Your task to perform on an android device: change the upload size in google photos Image 0: 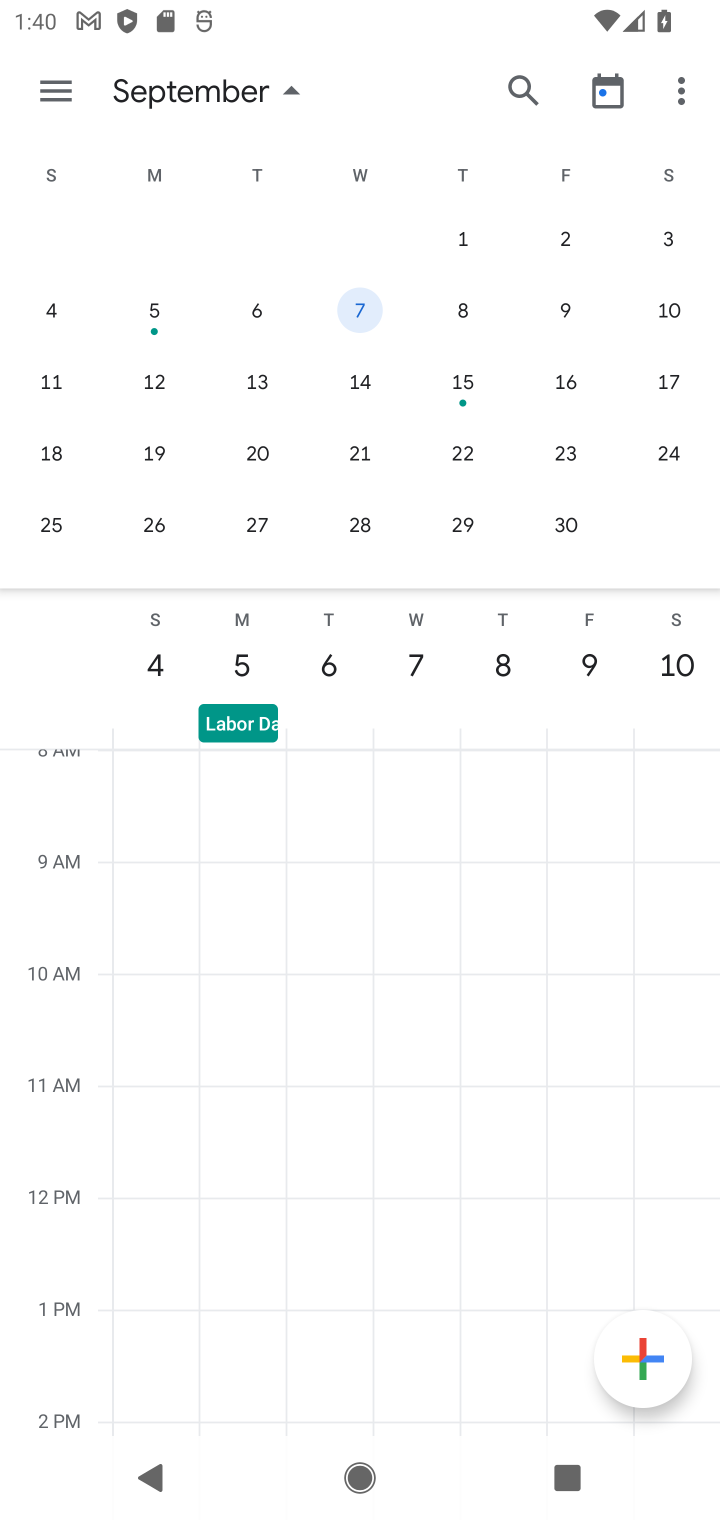
Step 0: press home button
Your task to perform on an android device: change the upload size in google photos Image 1: 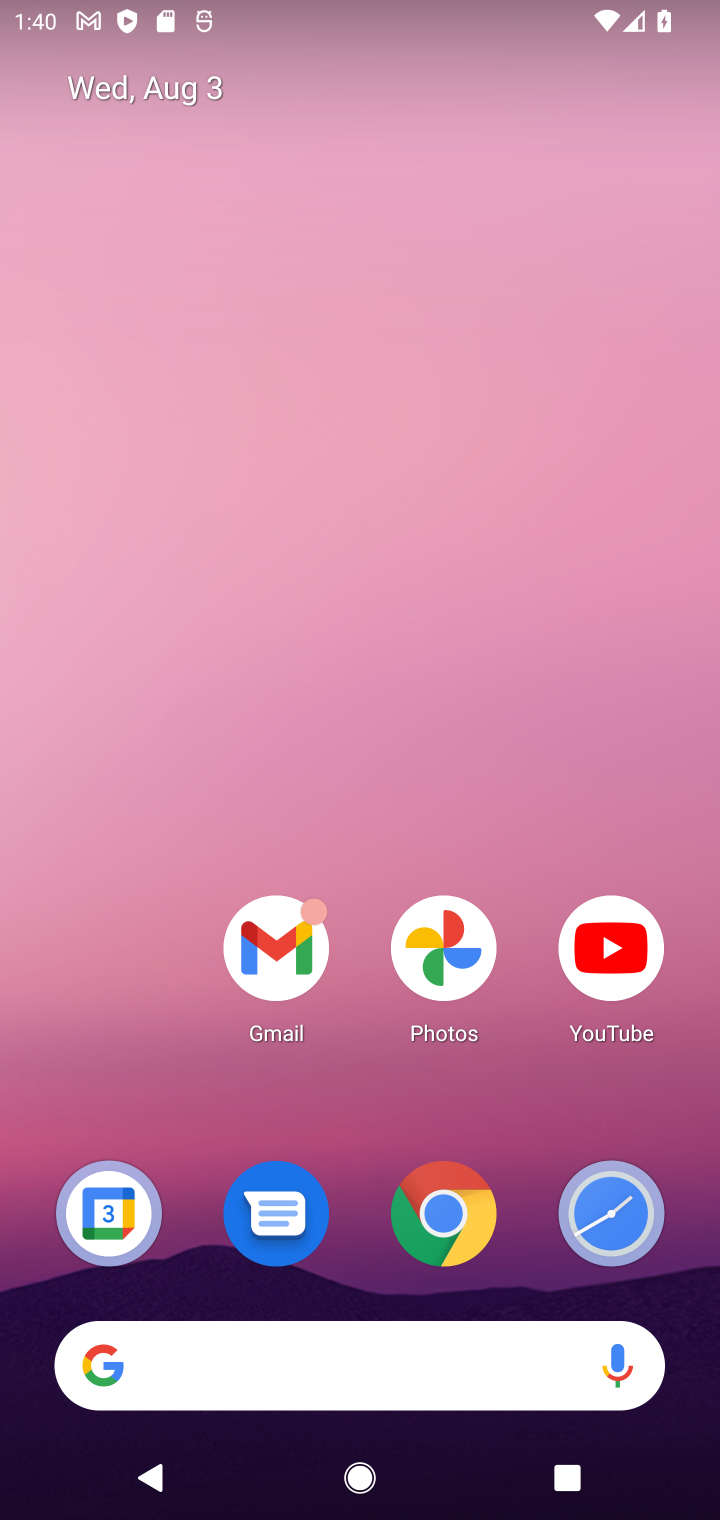
Step 1: drag from (521, 900) to (541, 34)
Your task to perform on an android device: change the upload size in google photos Image 2: 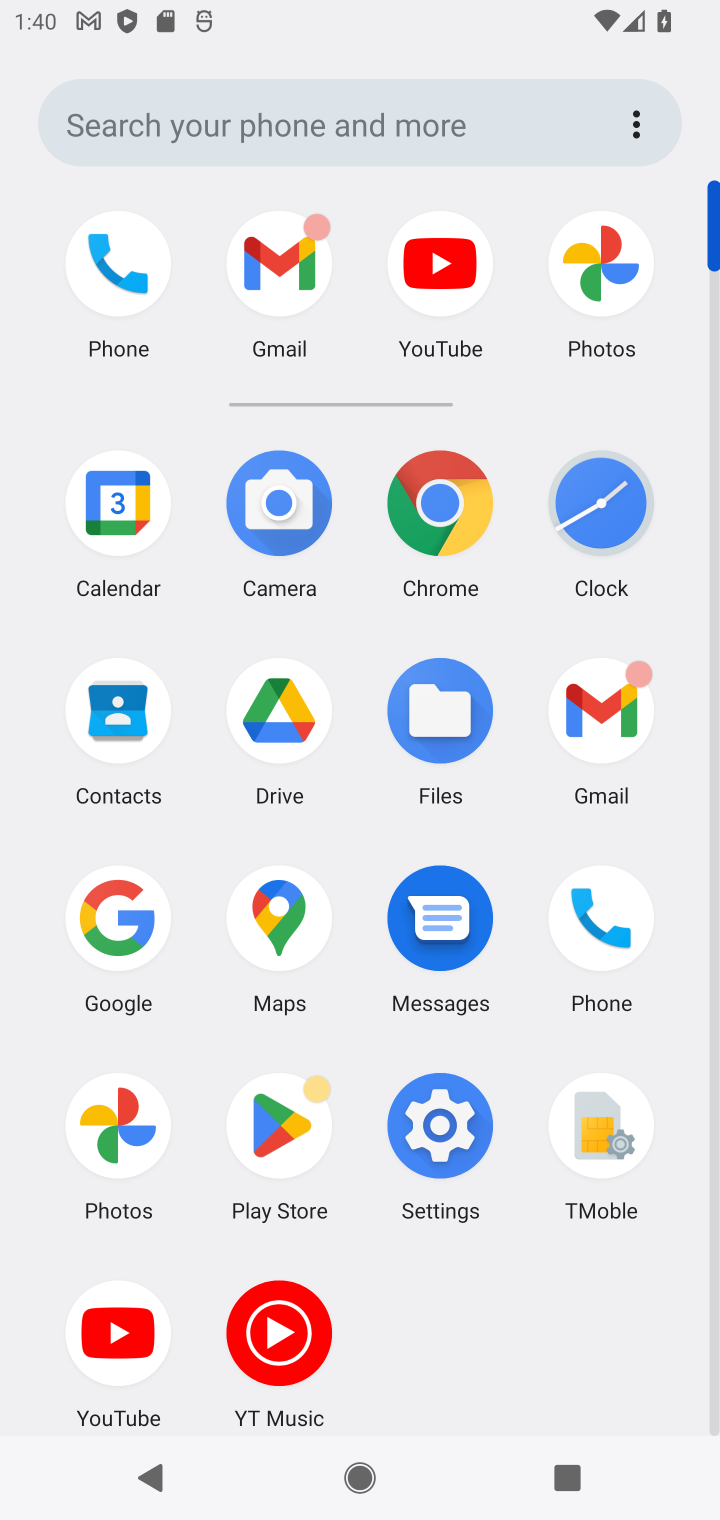
Step 2: click (132, 1118)
Your task to perform on an android device: change the upload size in google photos Image 3: 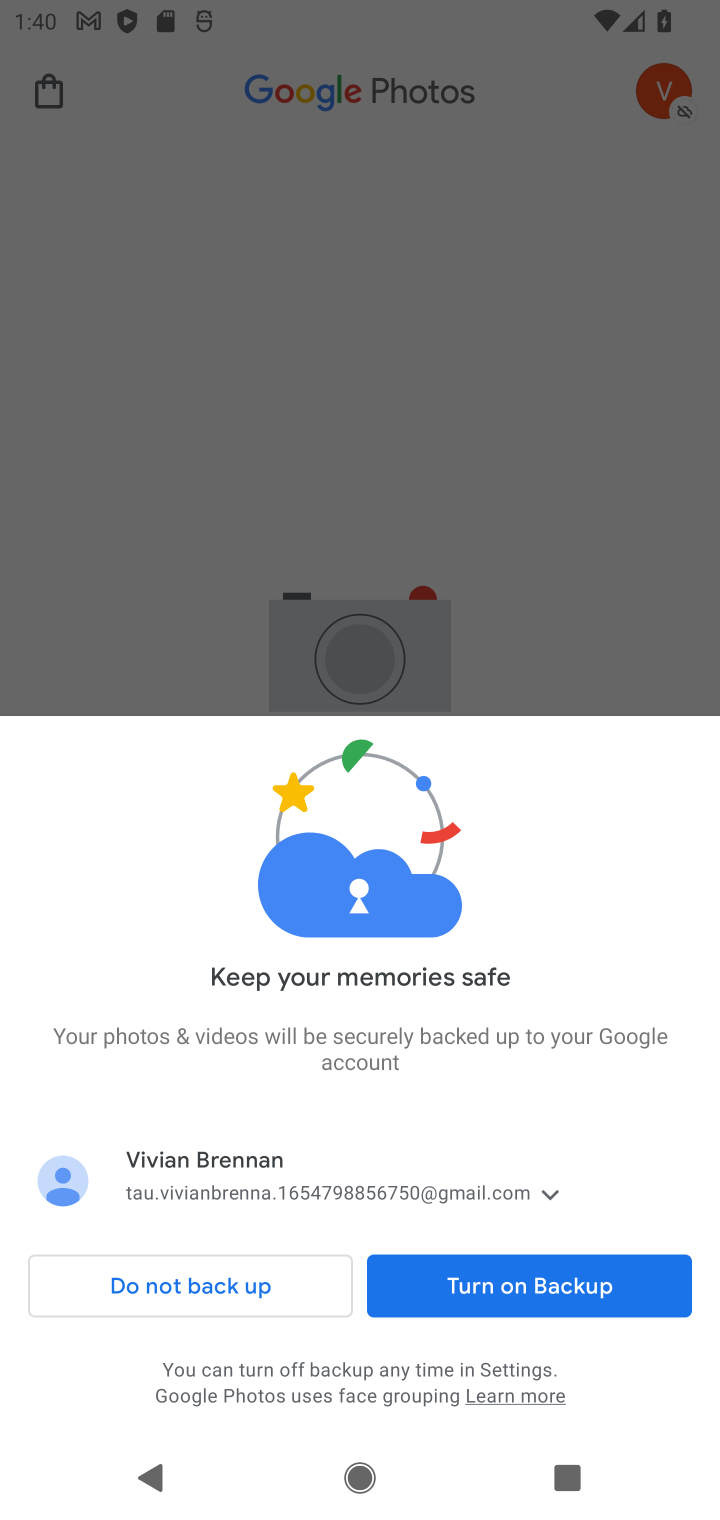
Step 3: click (474, 1287)
Your task to perform on an android device: change the upload size in google photos Image 4: 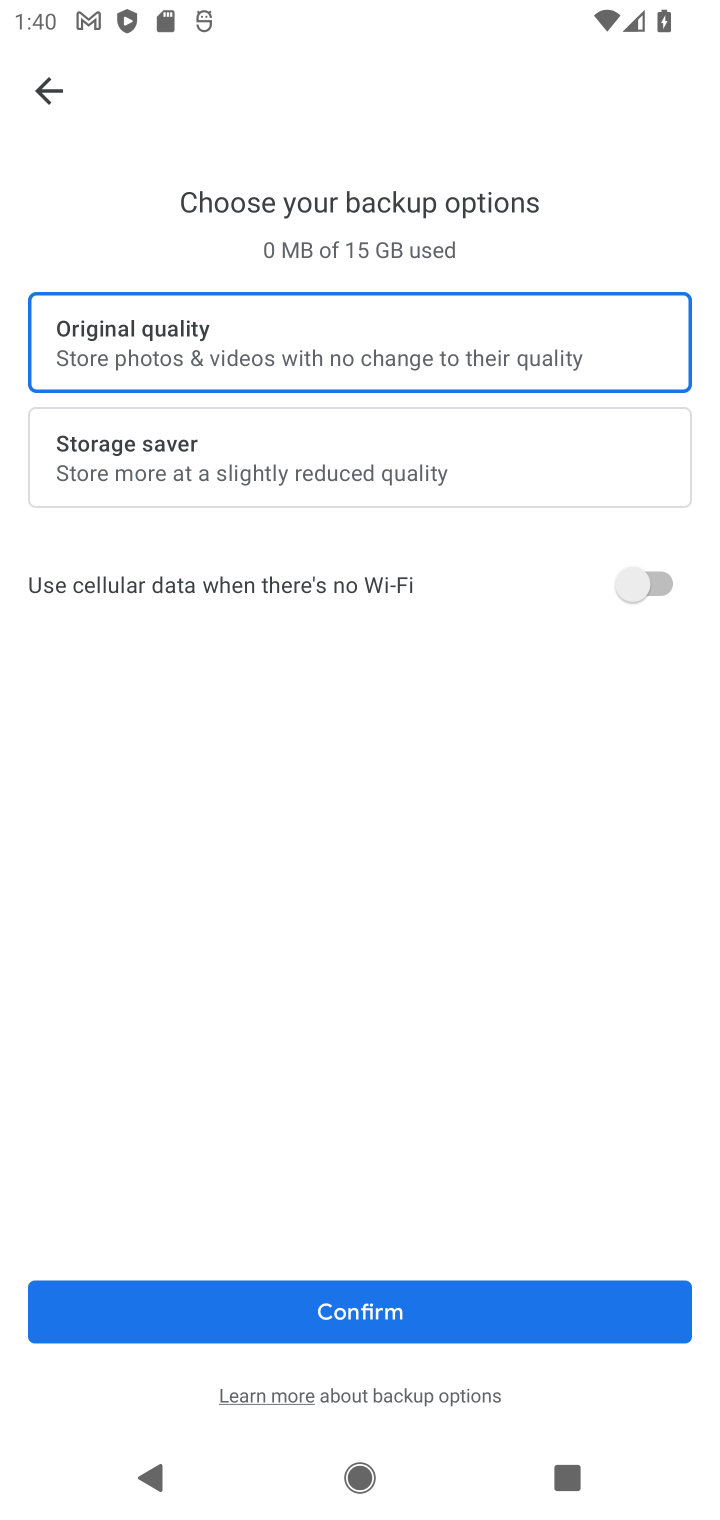
Step 4: click (414, 1311)
Your task to perform on an android device: change the upload size in google photos Image 5: 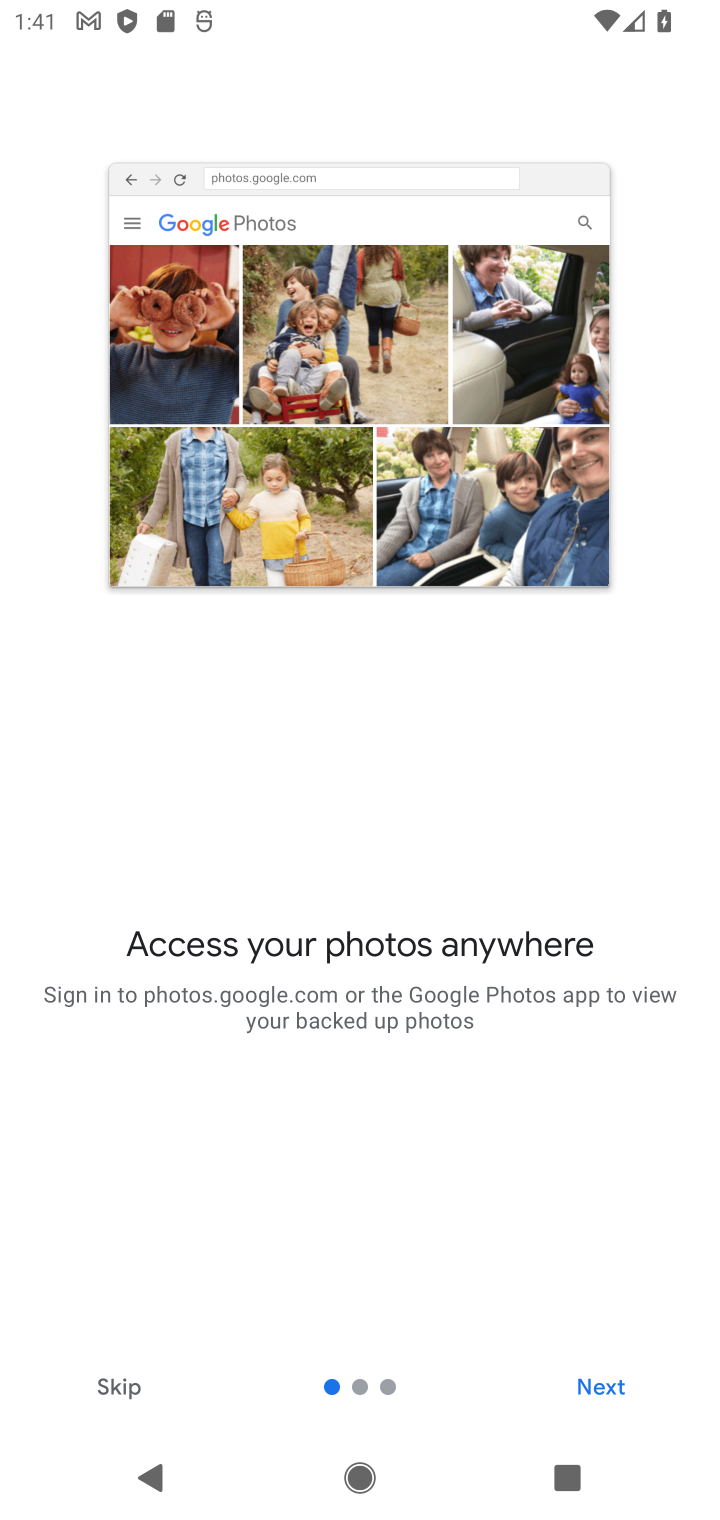
Step 5: click (600, 1378)
Your task to perform on an android device: change the upload size in google photos Image 6: 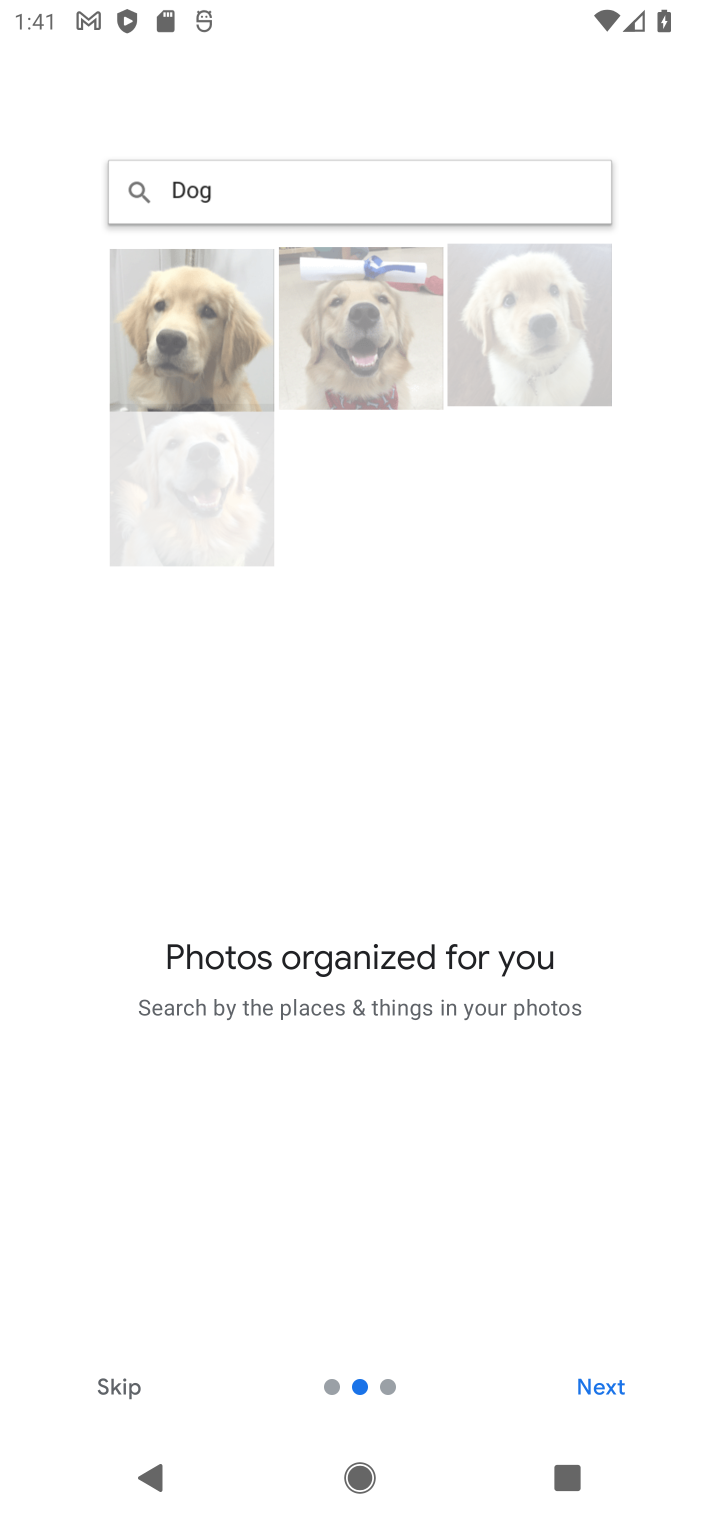
Step 6: click (597, 1380)
Your task to perform on an android device: change the upload size in google photos Image 7: 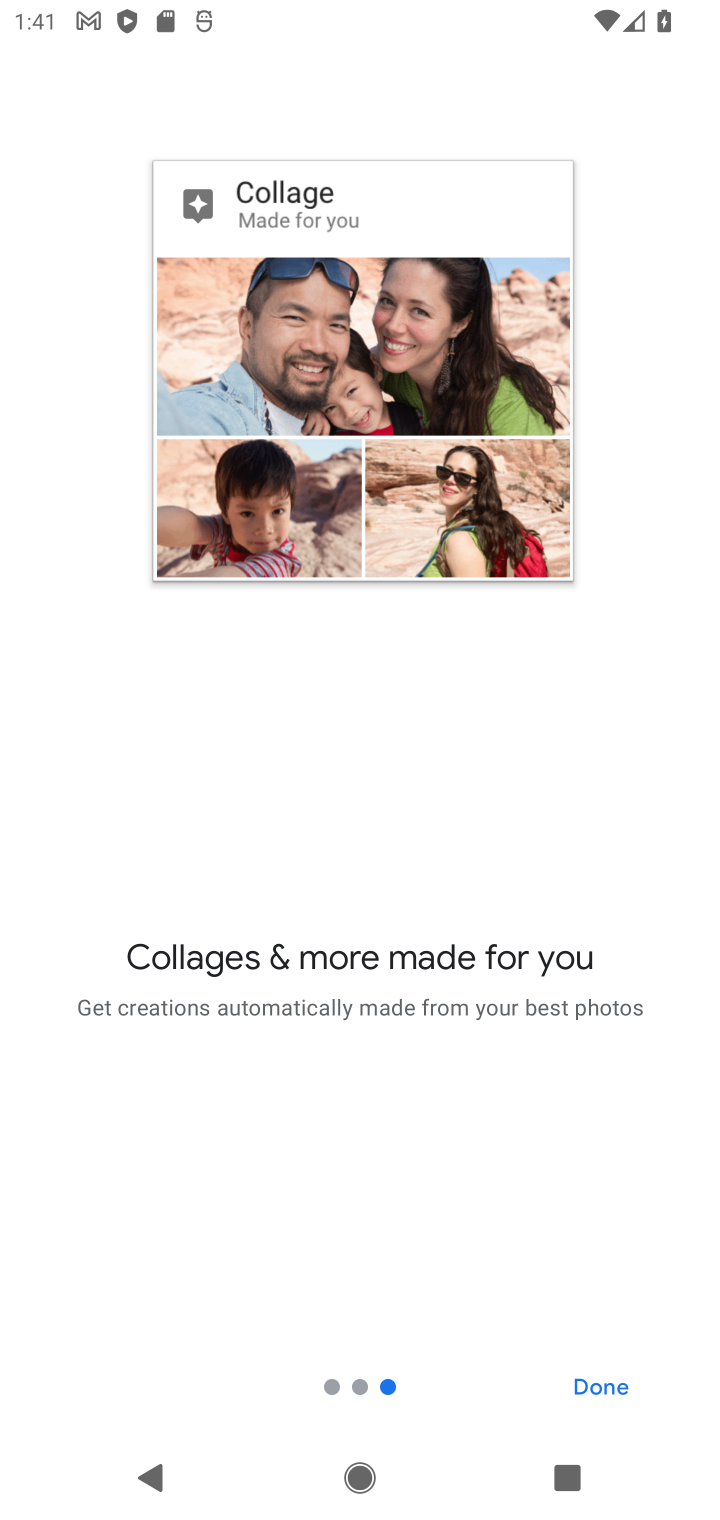
Step 7: click (597, 1380)
Your task to perform on an android device: change the upload size in google photos Image 8: 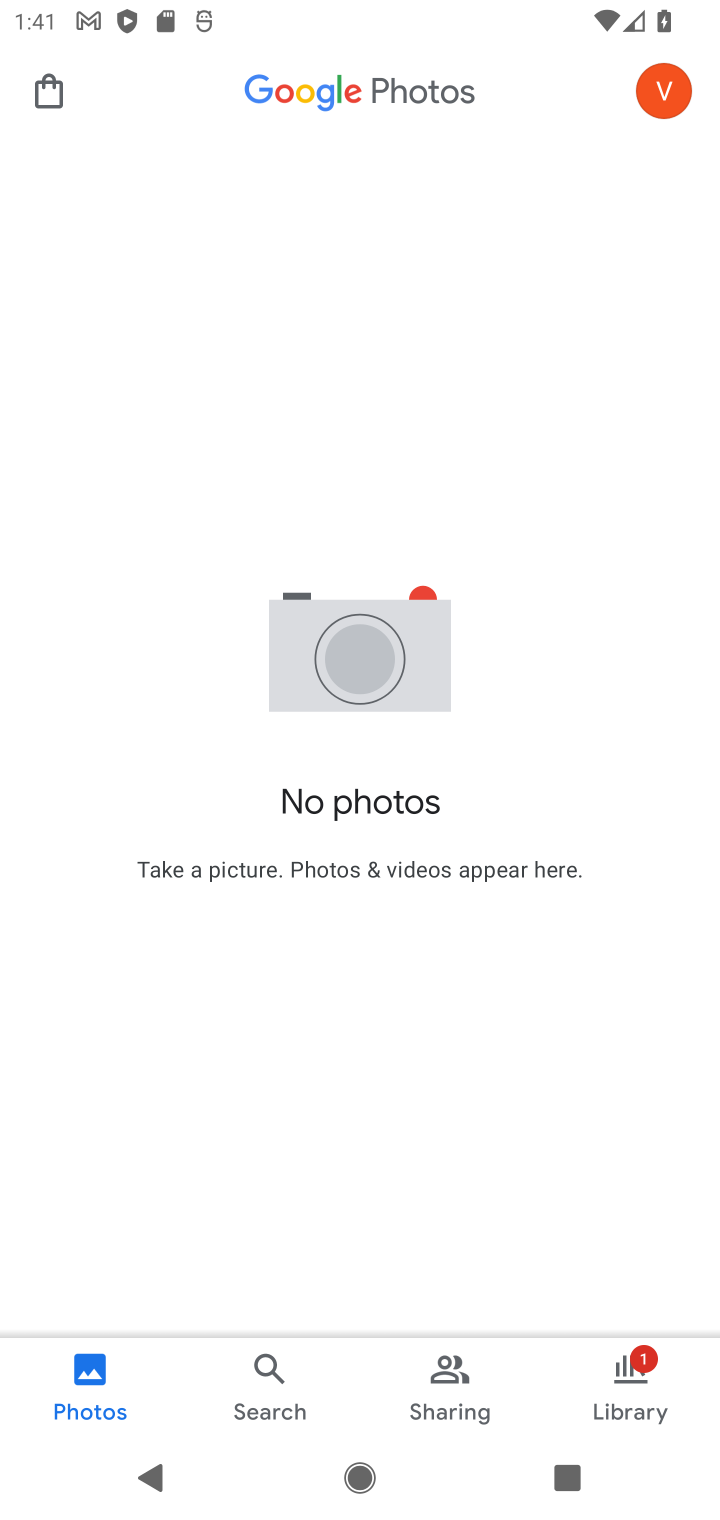
Step 8: click (660, 79)
Your task to perform on an android device: change the upload size in google photos Image 9: 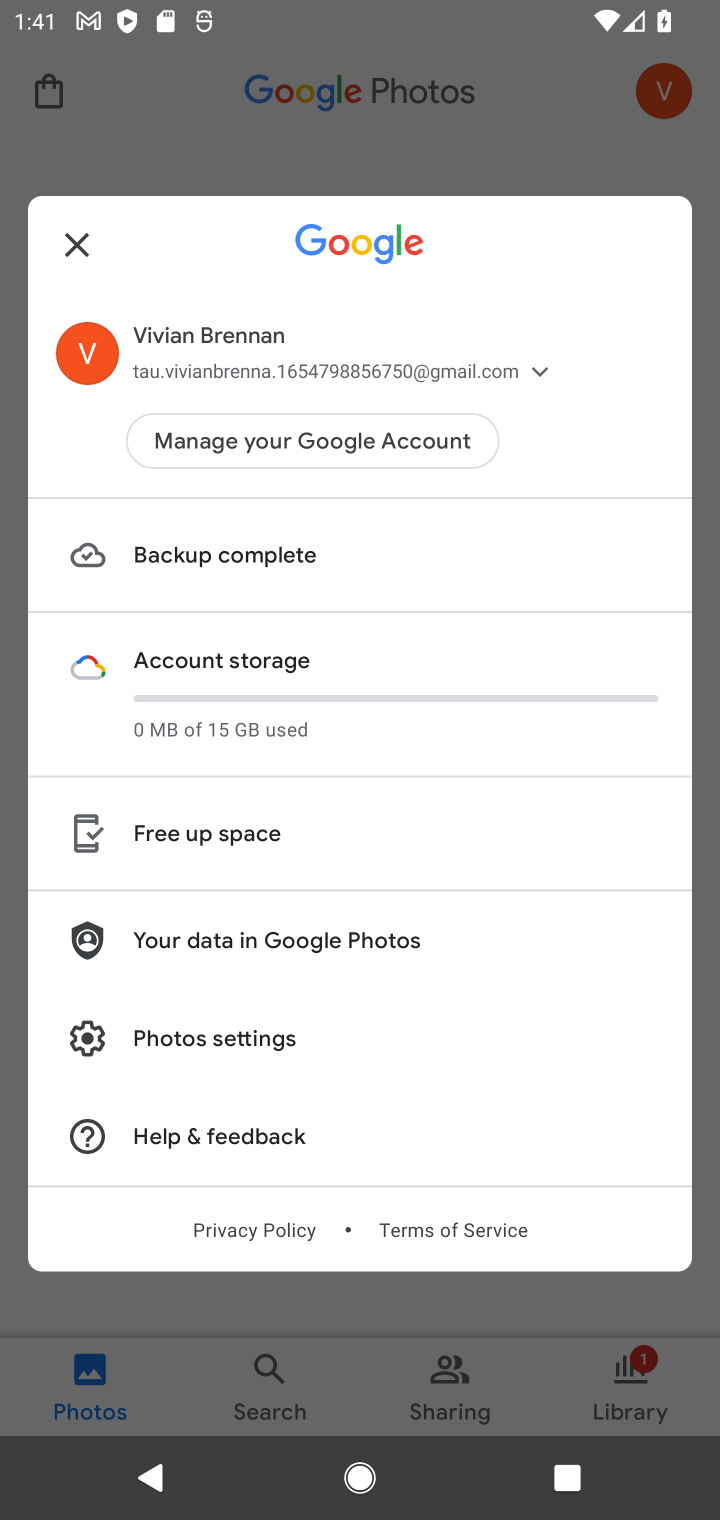
Step 9: click (293, 1039)
Your task to perform on an android device: change the upload size in google photos Image 10: 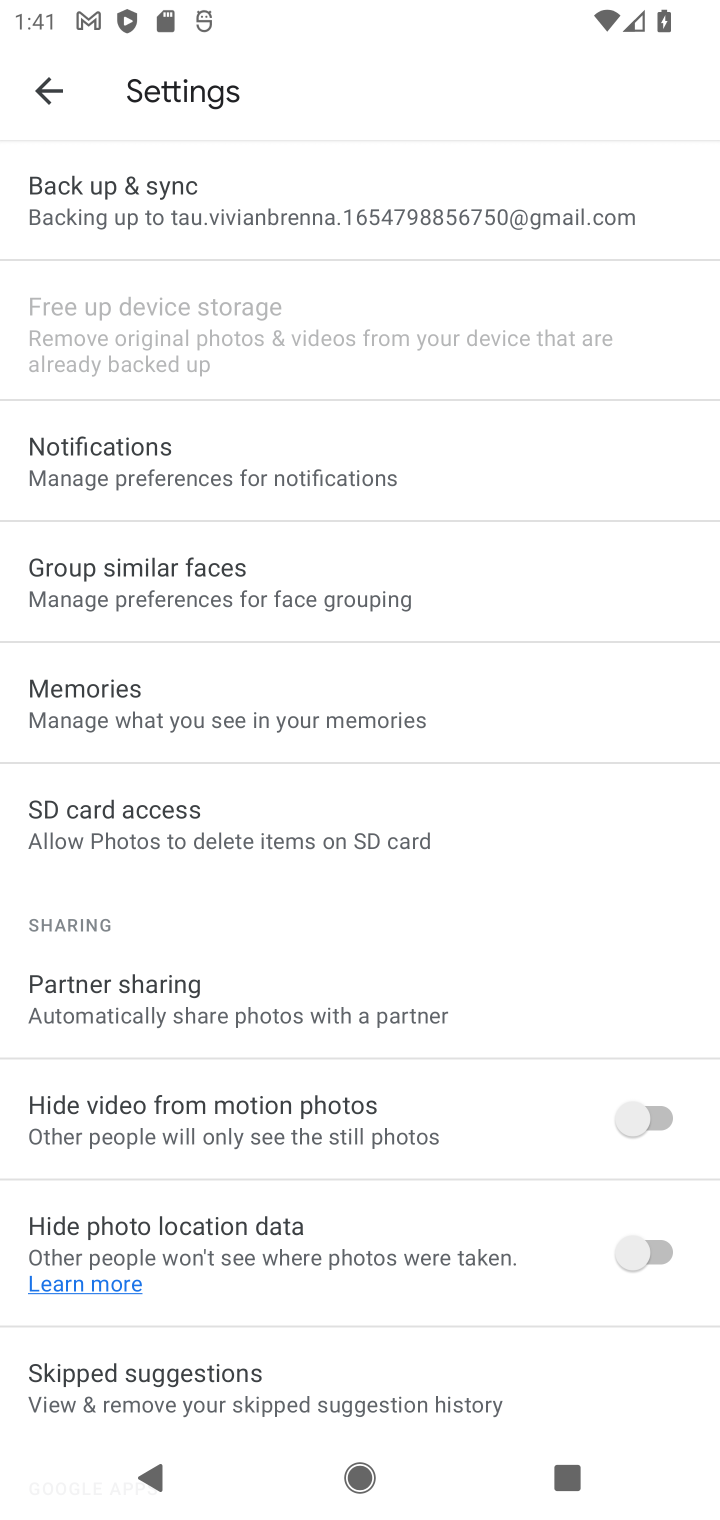
Step 10: click (227, 206)
Your task to perform on an android device: change the upload size in google photos Image 11: 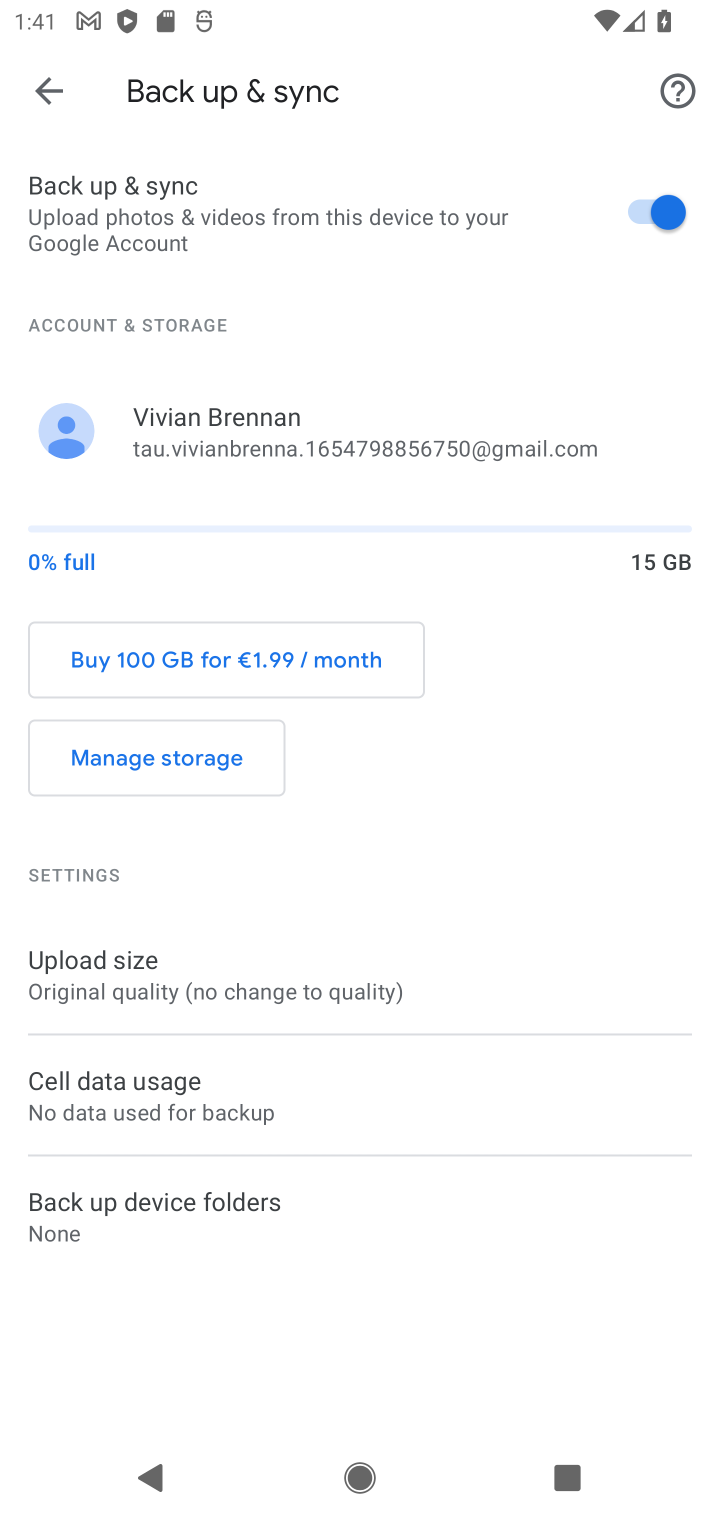
Step 11: click (272, 990)
Your task to perform on an android device: change the upload size in google photos Image 12: 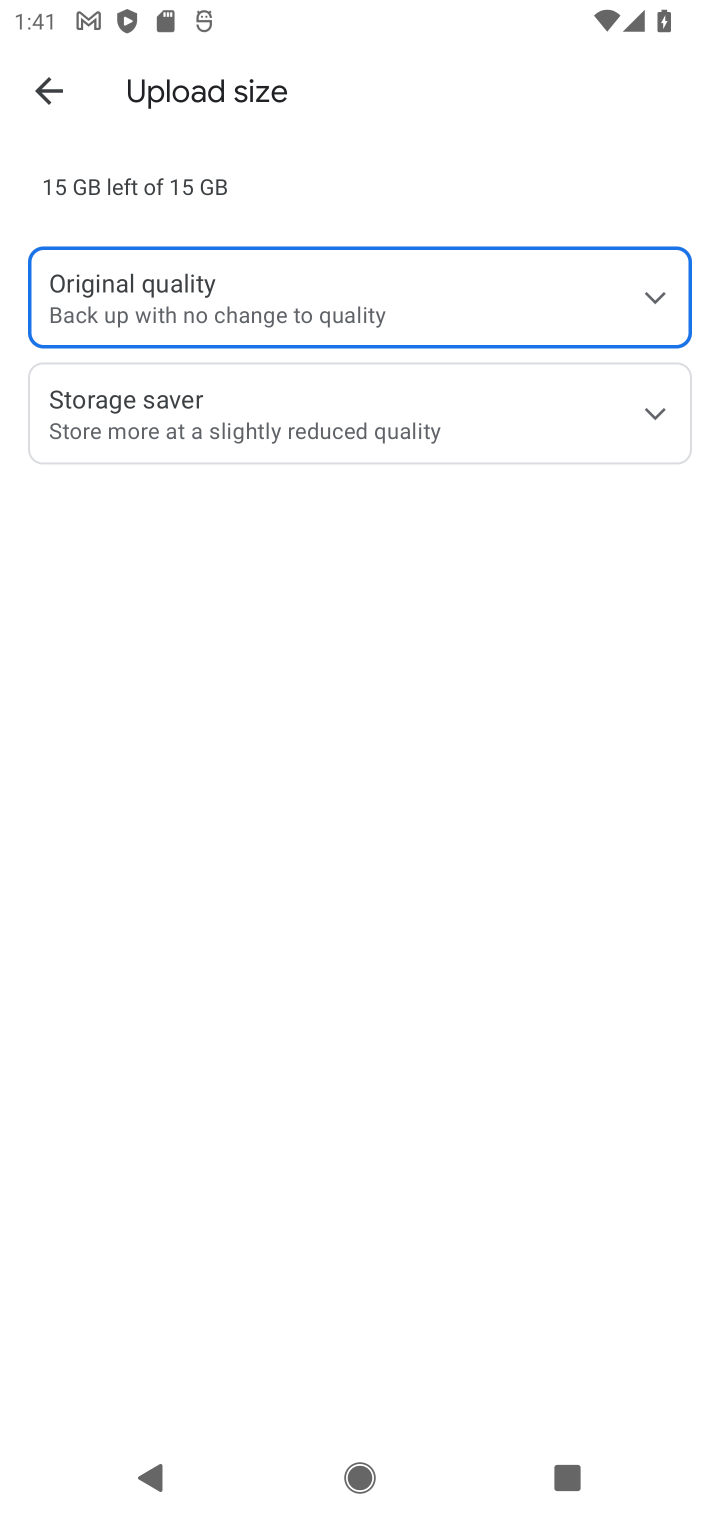
Step 12: click (171, 436)
Your task to perform on an android device: change the upload size in google photos Image 13: 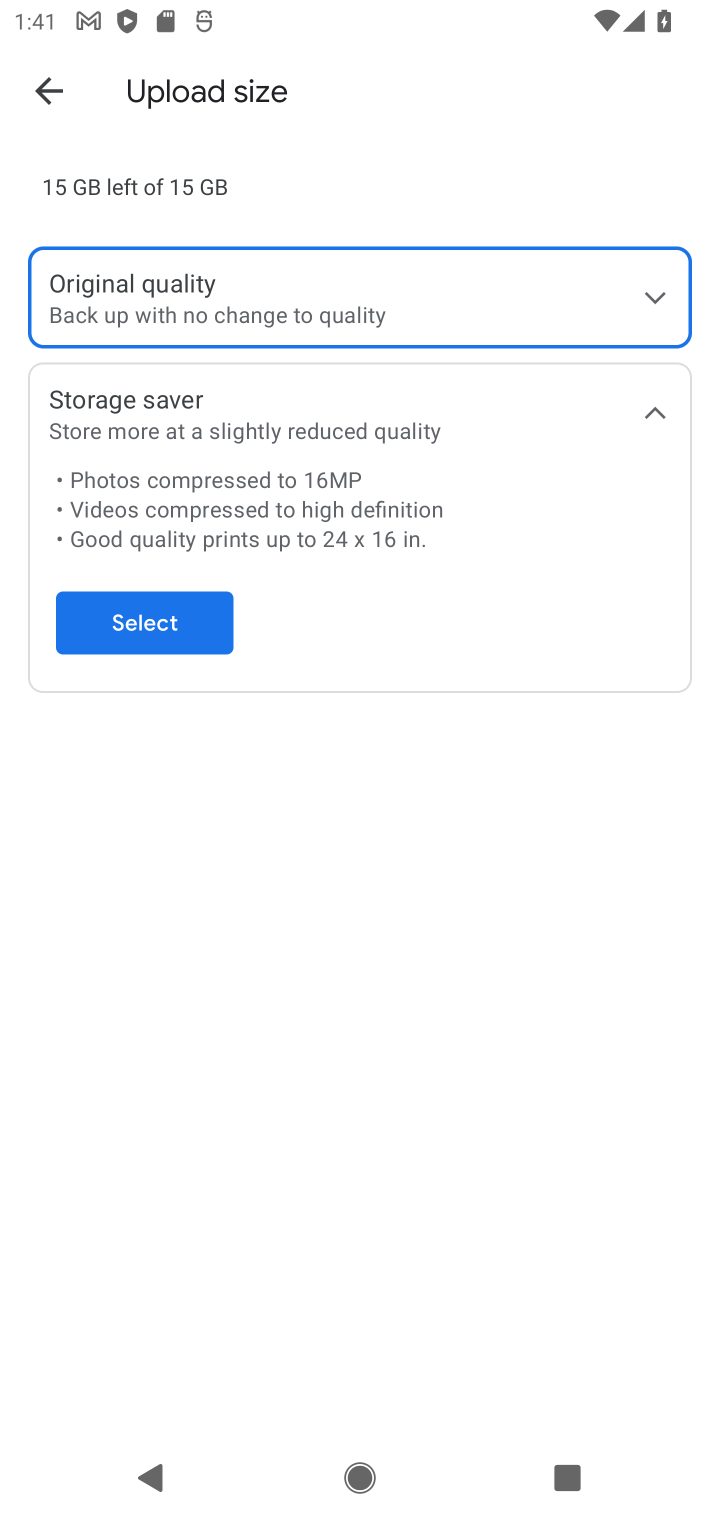
Step 13: click (182, 631)
Your task to perform on an android device: change the upload size in google photos Image 14: 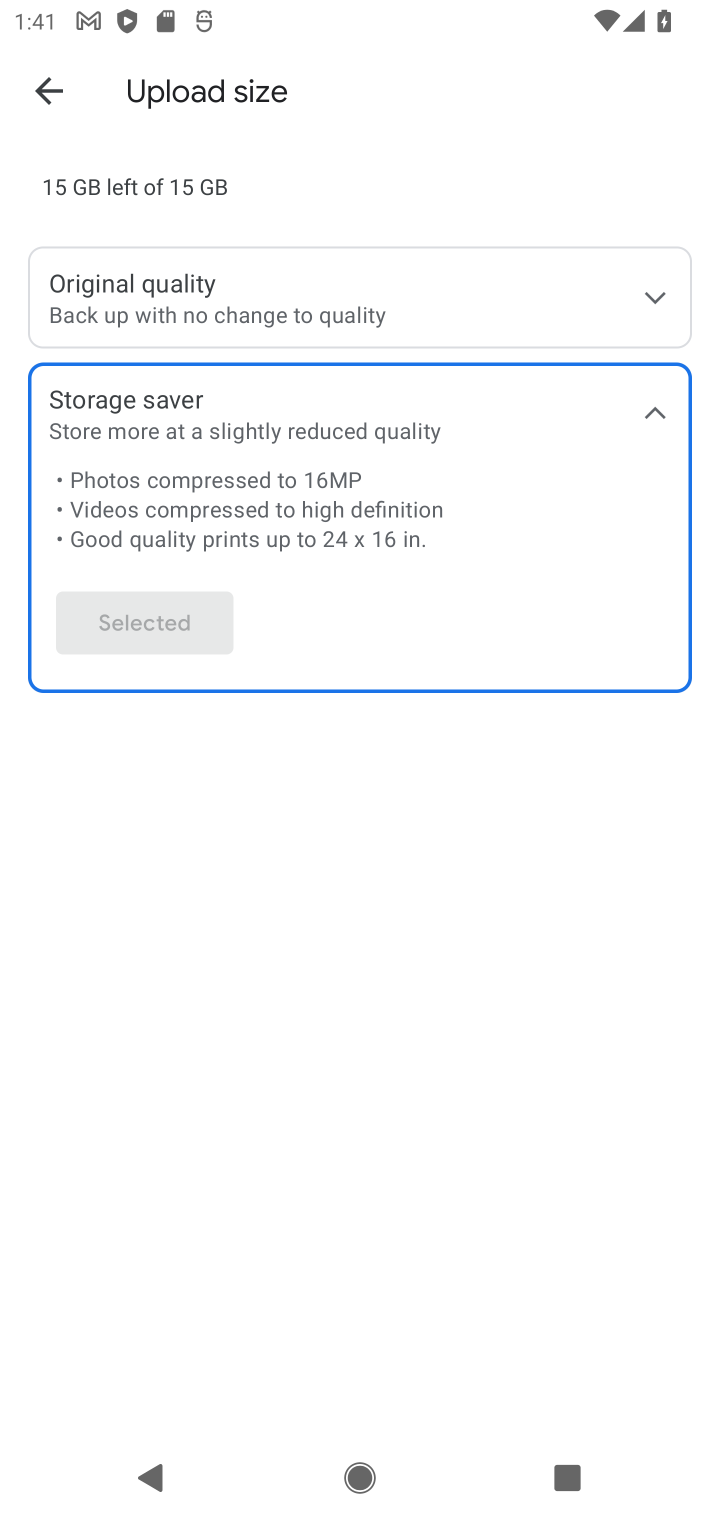
Step 14: task complete